Your task to perform on an android device: change keyboard looks Image 0: 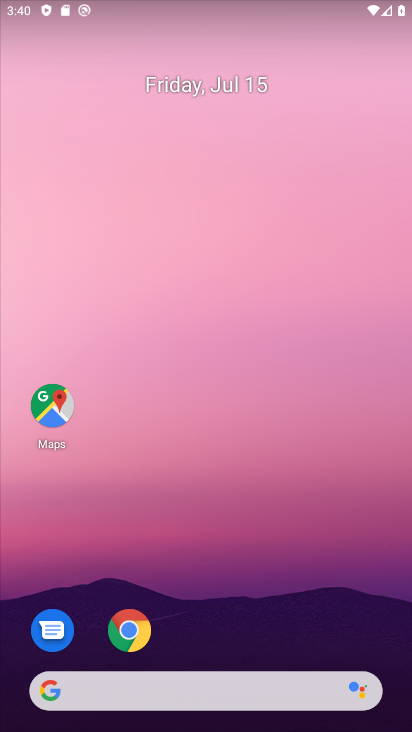
Step 0: drag from (231, 666) to (204, 82)
Your task to perform on an android device: change keyboard looks Image 1: 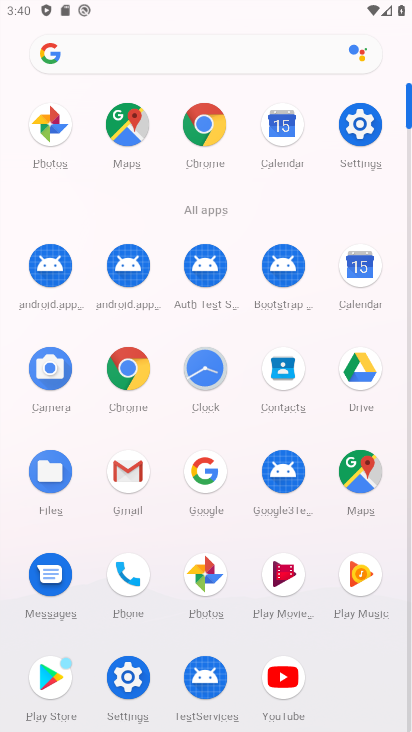
Step 1: click (134, 672)
Your task to perform on an android device: change keyboard looks Image 2: 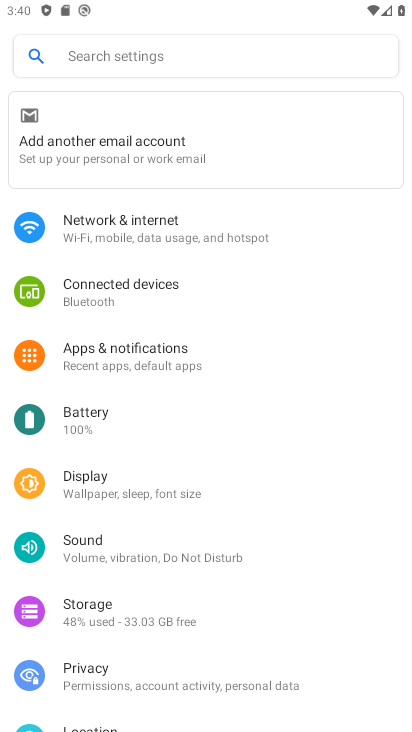
Step 2: click (111, 497)
Your task to perform on an android device: change keyboard looks Image 3: 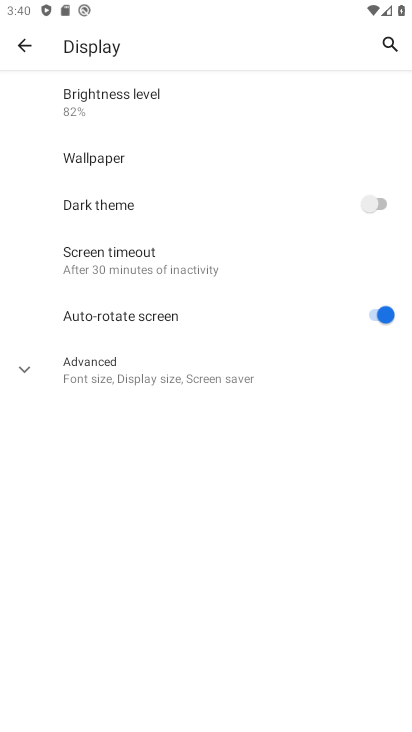
Step 3: click (24, 32)
Your task to perform on an android device: change keyboard looks Image 4: 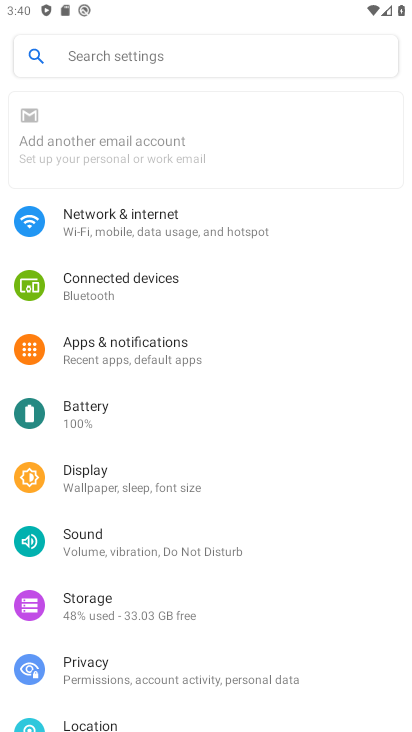
Step 4: drag from (147, 621) to (102, 14)
Your task to perform on an android device: change keyboard looks Image 5: 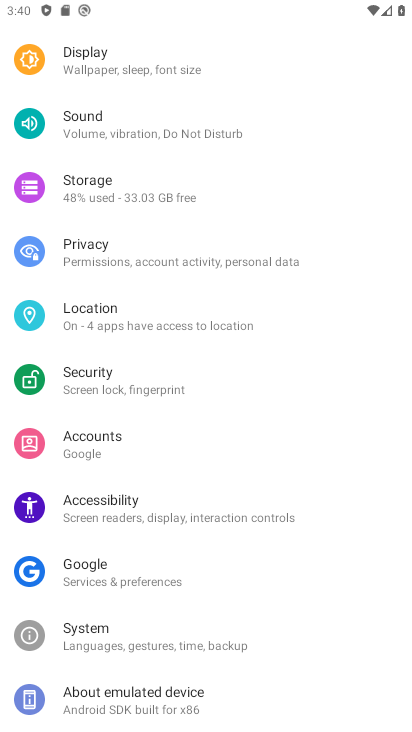
Step 5: click (119, 692)
Your task to perform on an android device: change keyboard looks Image 6: 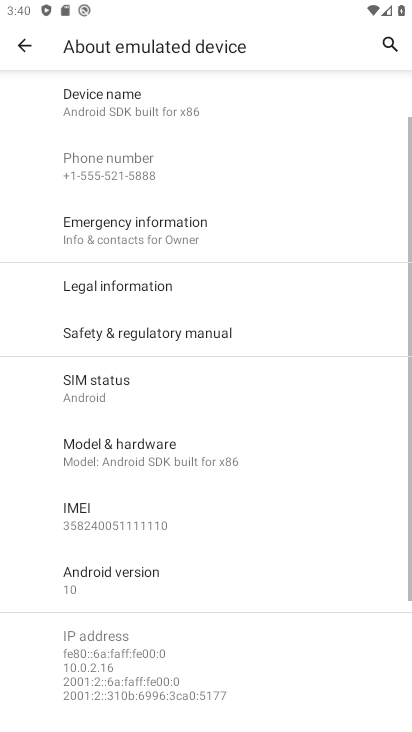
Step 6: click (15, 42)
Your task to perform on an android device: change keyboard looks Image 7: 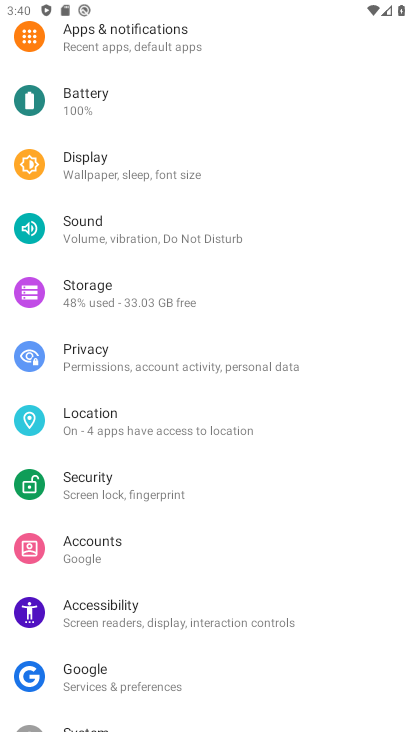
Step 7: drag from (121, 633) to (93, 338)
Your task to perform on an android device: change keyboard looks Image 8: 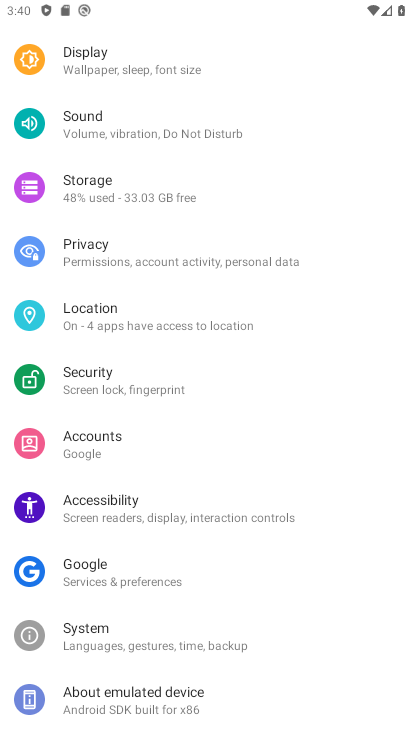
Step 8: click (92, 616)
Your task to perform on an android device: change keyboard looks Image 9: 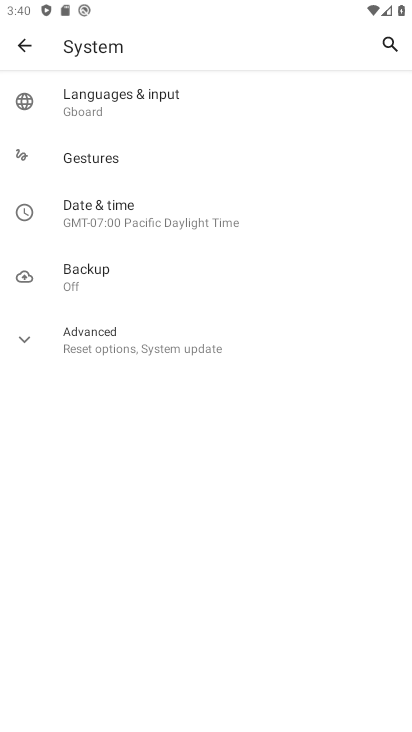
Step 9: click (77, 101)
Your task to perform on an android device: change keyboard looks Image 10: 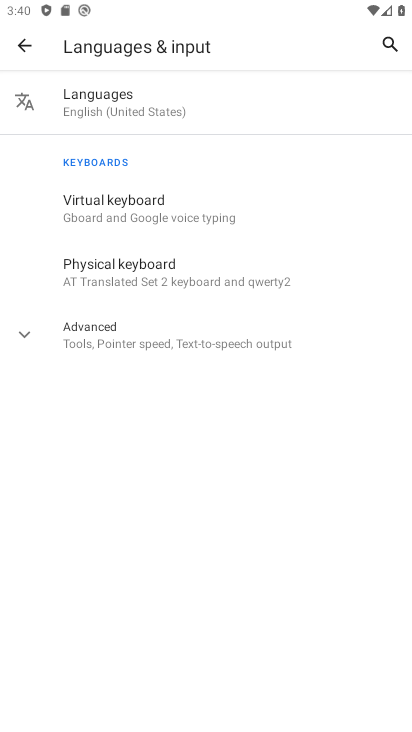
Step 10: click (116, 198)
Your task to perform on an android device: change keyboard looks Image 11: 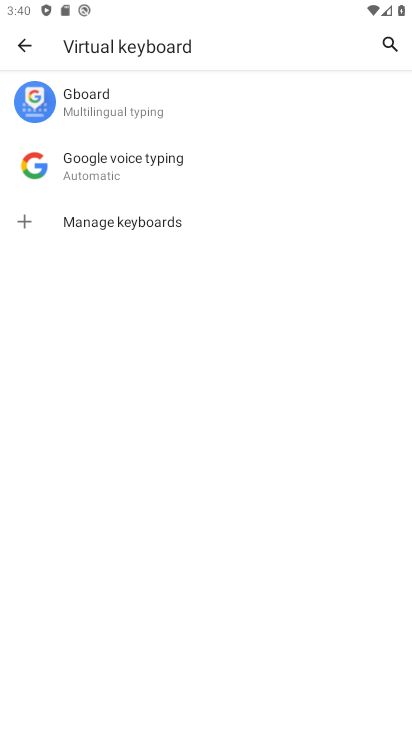
Step 11: click (85, 107)
Your task to perform on an android device: change keyboard looks Image 12: 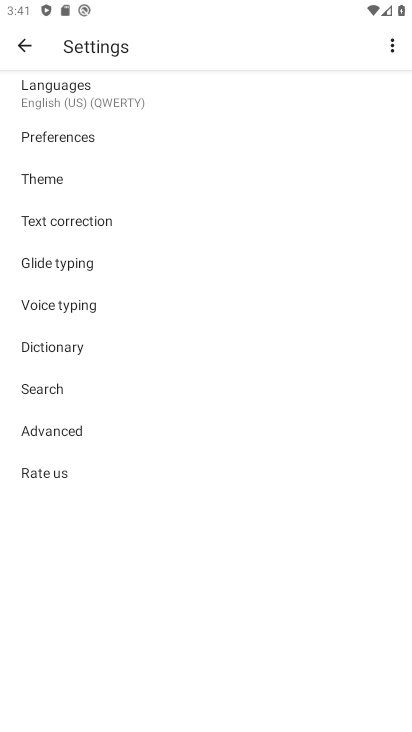
Step 12: click (55, 182)
Your task to perform on an android device: change keyboard looks Image 13: 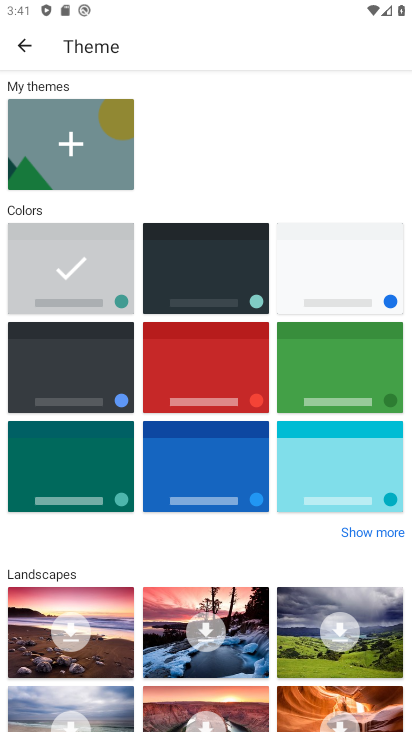
Step 13: click (171, 267)
Your task to perform on an android device: change keyboard looks Image 14: 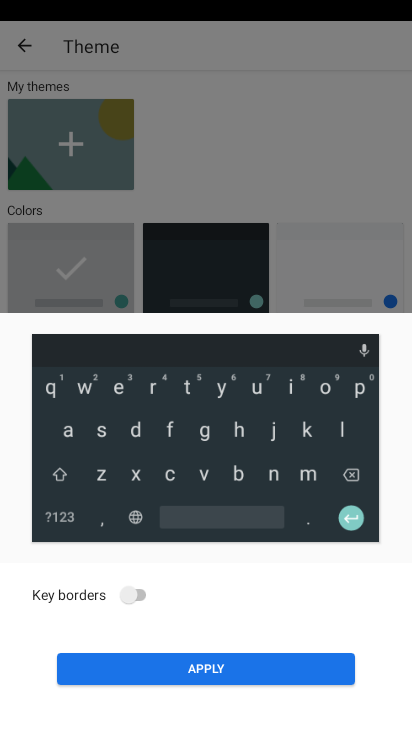
Step 14: click (263, 671)
Your task to perform on an android device: change keyboard looks Image 15: 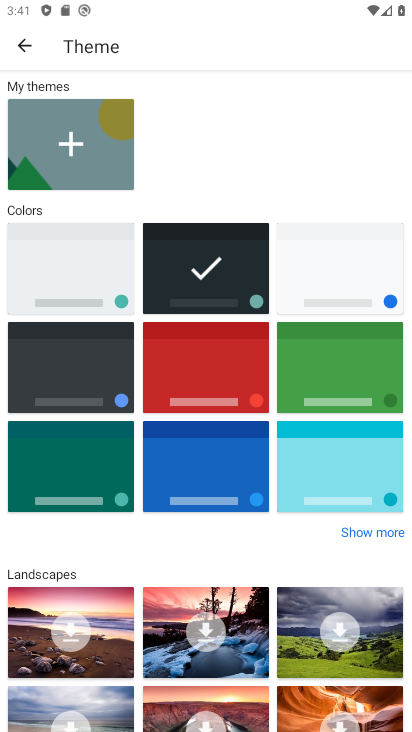
Step 15: task complete